Your task to perform on an android device: Is it going to rain tomorrow? Image 0: 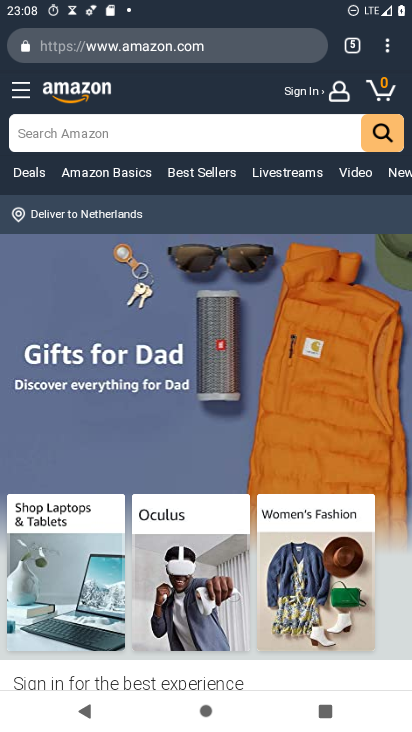
Step 0: press back button
Your task to perform on an android device: Is it going to rain tomorrow? Image 1: 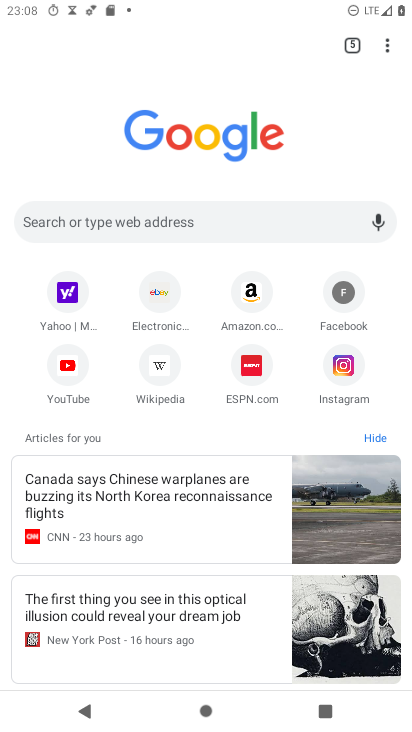
Step 1: press back button
Your task to perform on an android device: Is it going to rain tomorrow? Image 2: 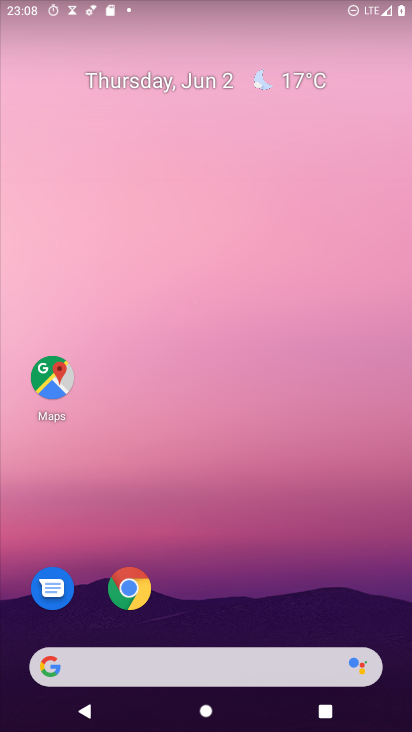
Step 2: click (268, 77)
Your task to perform on an android device: Is it going to rain tomorrow? Image 3: 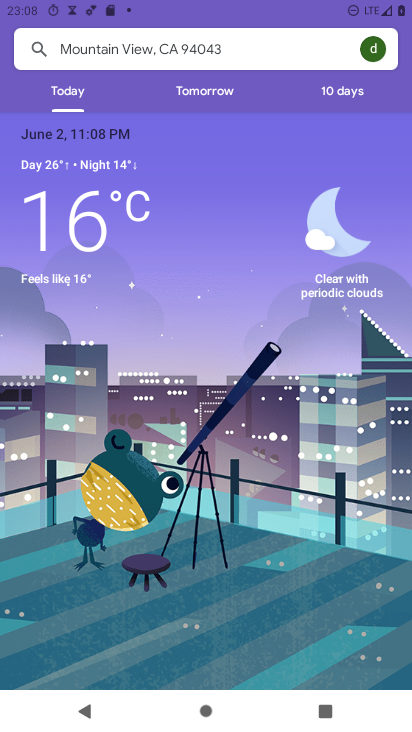
Step 3: drag from (280, 97) to (214, 97)
Your task to perform on an android device: Is it going to rain tomorrow? Image 4: 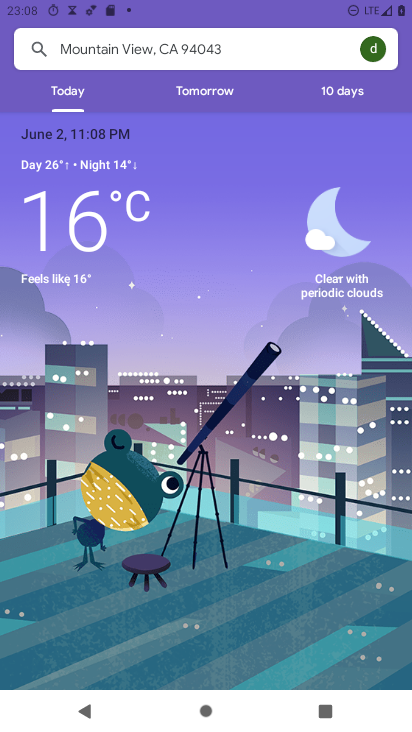
Step 4: click (205, 105)
Your task to perform on an android device: Is it going to rain tomorrow? Image 5: 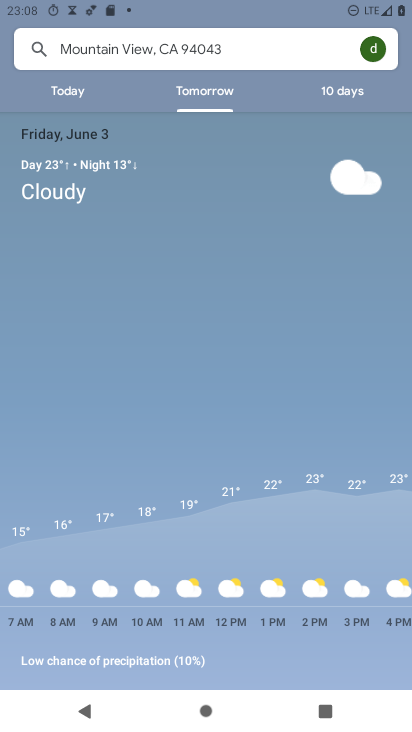
Step 5: task complete